Your task to perform on an android device: change notification settings in the gmail app Image 0: 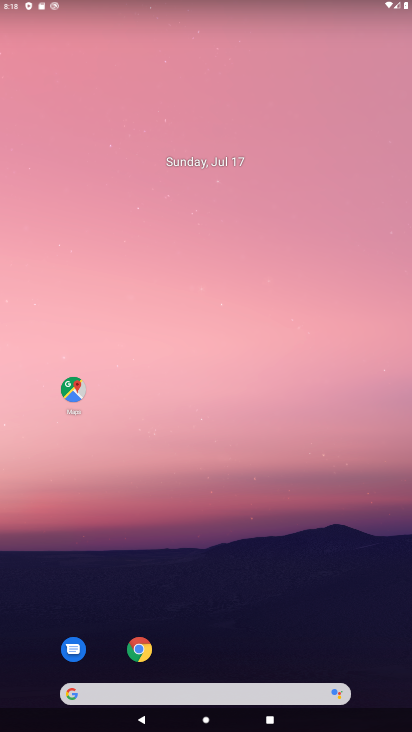
Step 0: drag from (238, 645) to (220, 229)
Your task to perform on an android device: change notification settings in the gmail app Image 1: 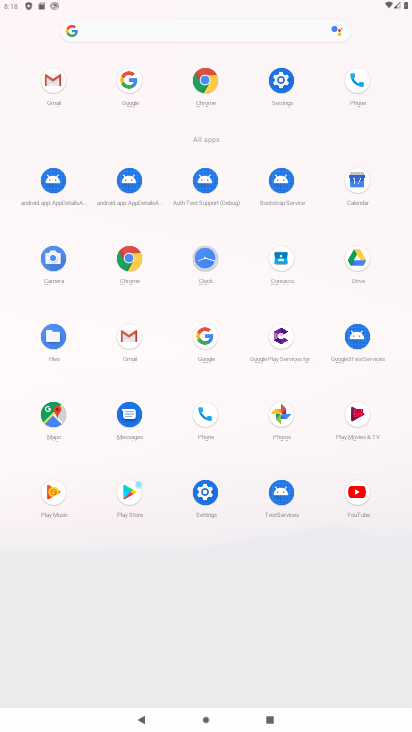
Step 1: click (130, 336)
Your task to perform on an android device: change notification settings in the gmail app Image 2: 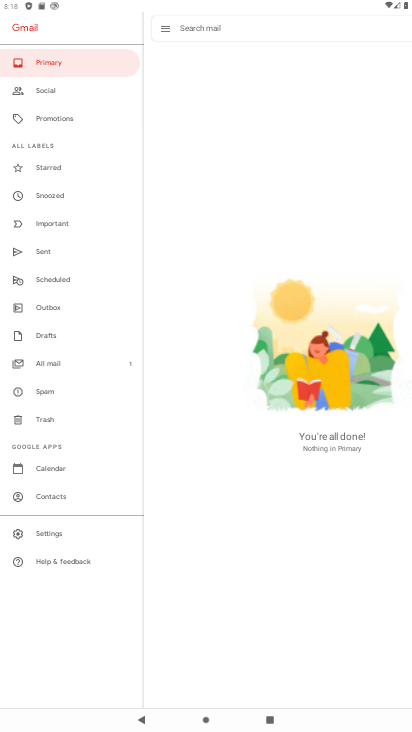
Step 2: click (54, 534)
Your task to perform on an android device: change notification settings in the gmail app Image 3: 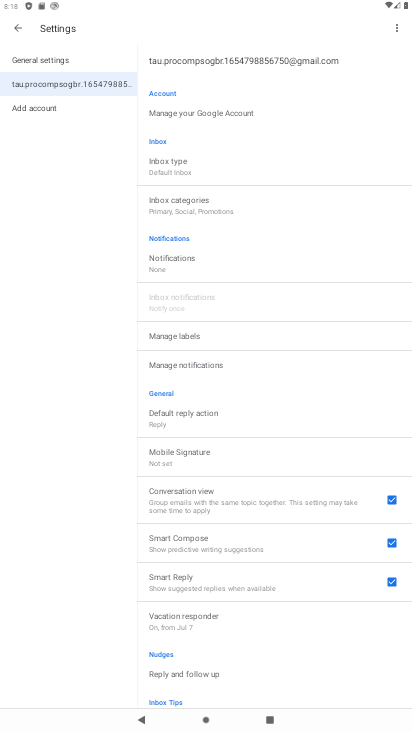
Step 3: click (179, 269)
Your task to perform on an android device: change notification settings in the gmail app Image 4: 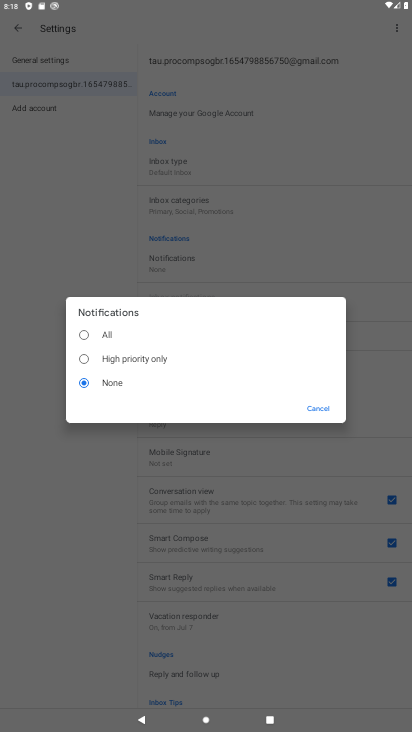
Step 4: click (80, 335)
Your task to perform on an android device: change notification settings in the gmail app Image 5: 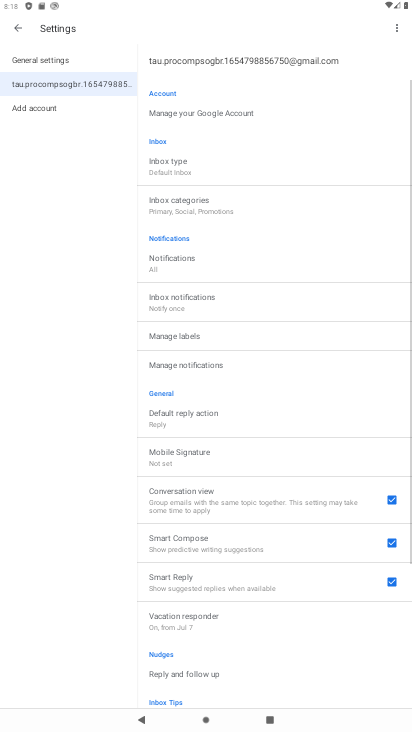
Step 5: task complete